Your task to perform on an android device: open device folders in google photos Image 0: 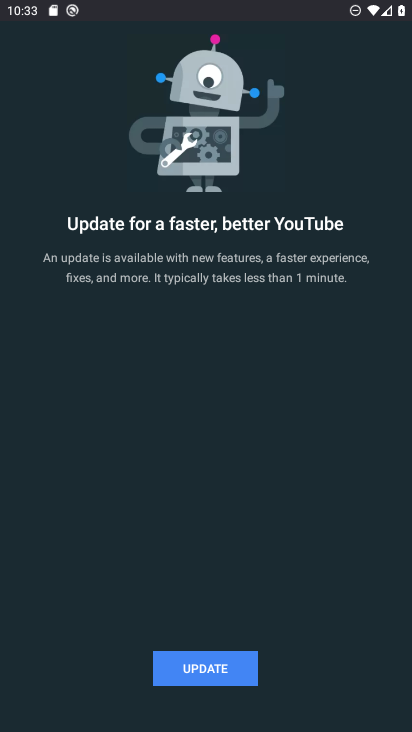
Step 0: press home button
Your task to perform on an android device: open device folders in google photos Image 1: 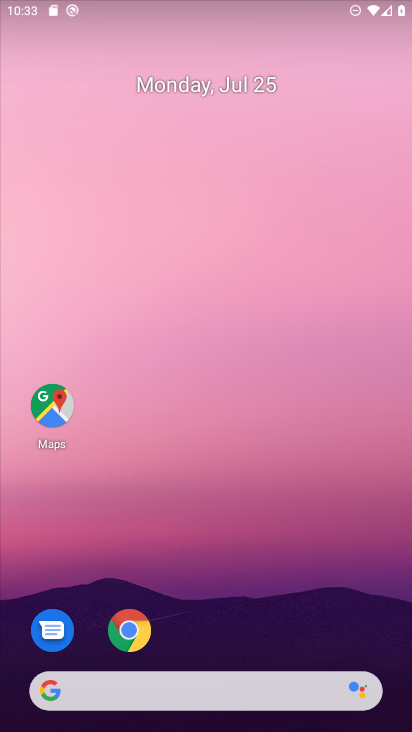
Step 1: drag from (348, 559) to (288, 180)
Your task to perform on an android device: open device folders in google photos Image 2: 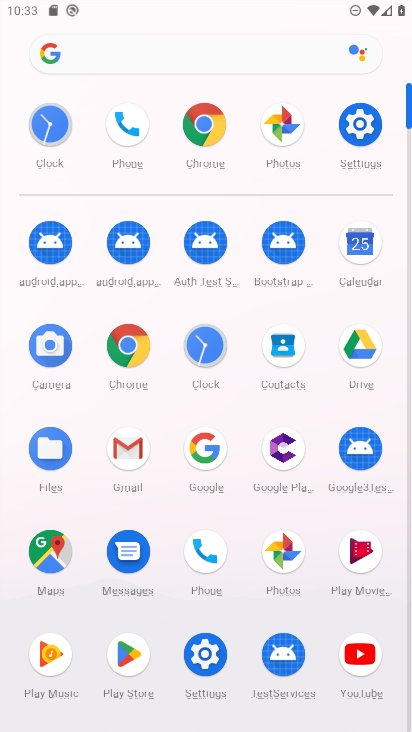
Step 2: drag from (251, 520) to (331, 158)
Your task to perform on an android device: open device folders in google photos Image 3: 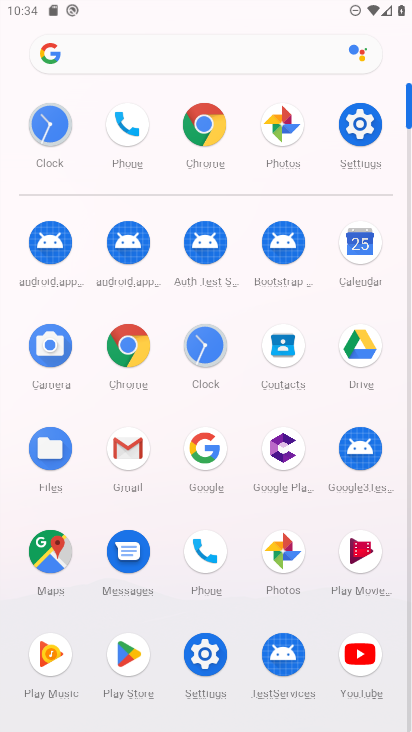
Step 3: click (288, 556)
Your task to perform on an android device: open device folders in google photos Image 4: 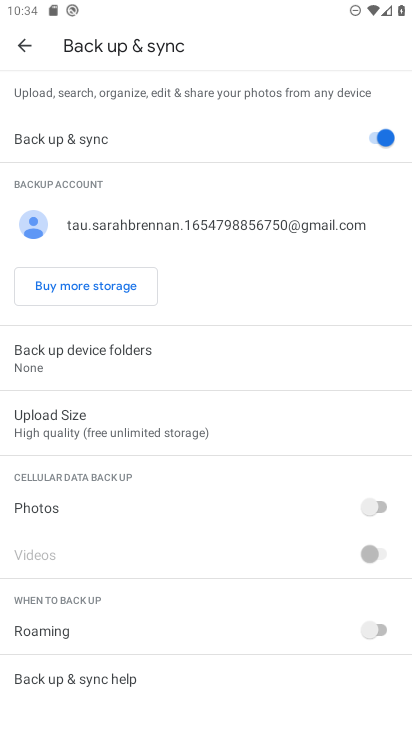
Step 4: click (40, 40)
Your task to perform on an android device: open device folders in google photos Image 5: 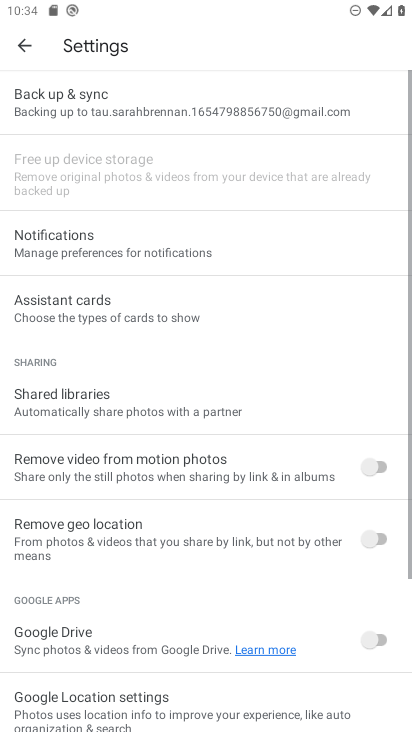
Step 5: click (33, 45)
Your task to perform on an android device: open device folders in google photos Image 6: 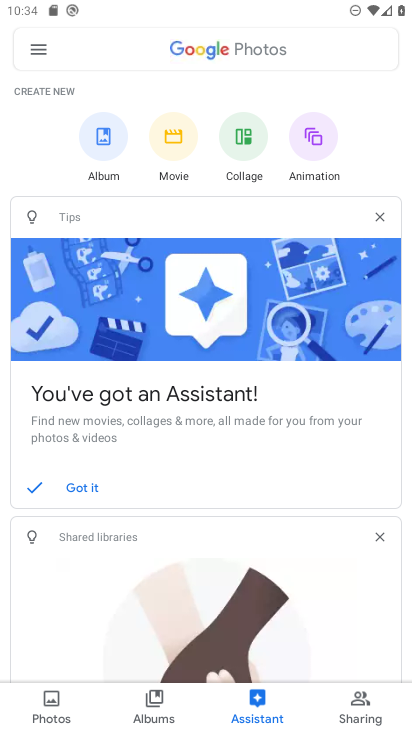
Step 6: click (33, 45)
Your task to perform on an android device: open device folders in google photos Image 7: 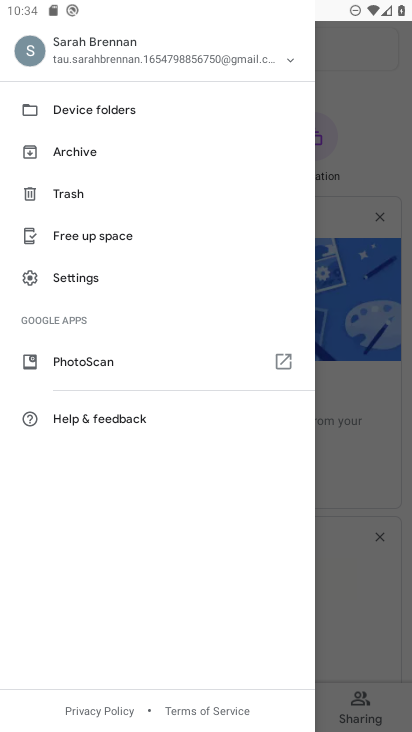
Step 7: click (89, 109)
Your task to perform on an android device: open device folders in google photos Image 8: 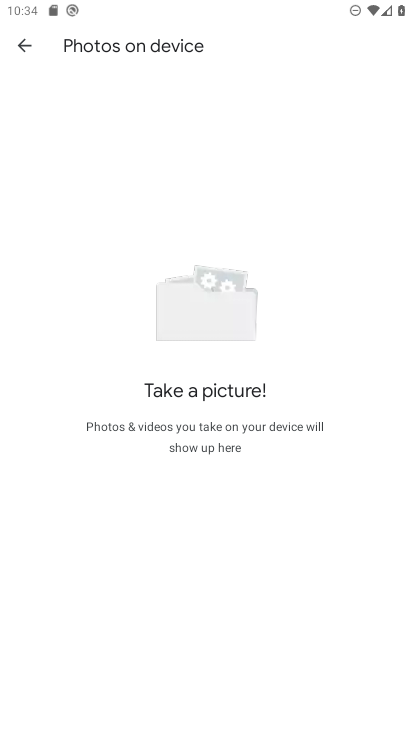
Step 8: task complete